Your task to perform on an android device: turn on showing notifications on the lock screen Image 0: 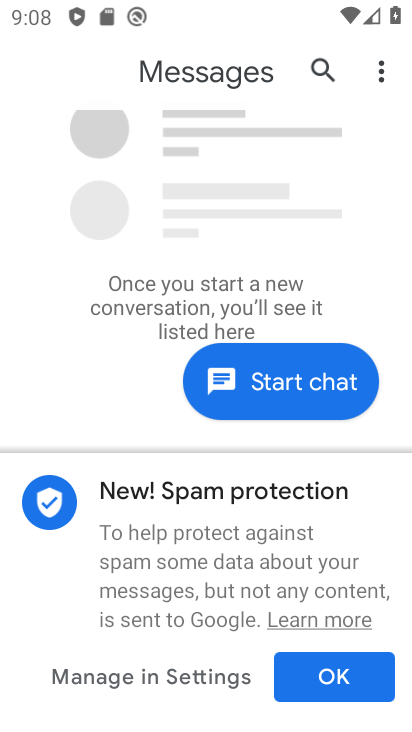
Step 0: press home button
Your task to perform on an android device: turn on showing notifications on the lock screen Image 1: 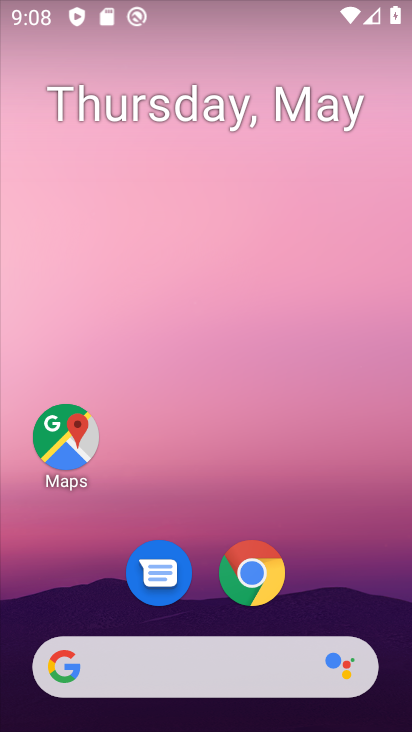
Step 1: drag from (94, 621) to (252, 181)
Your task to perform on an android device: turn on showing notifications on the lock screen Image 2: 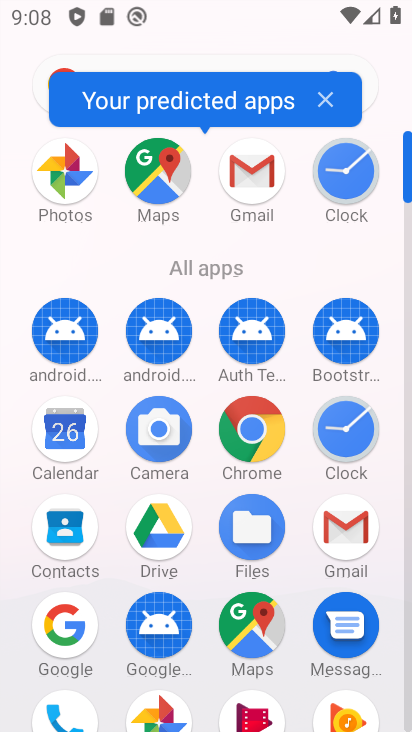
Step 2: drag from (158, 695) to (232, 430)
Your task to perform on an android device: turn on showing notifications on the lock screen Image 3: 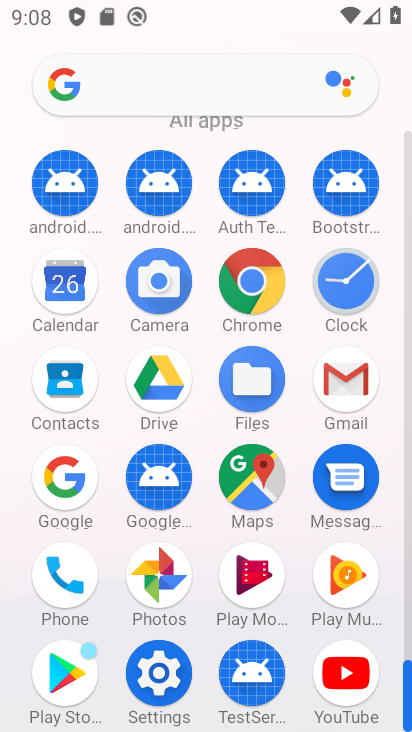
Step 3: click (153, 680)
Your task to perform on an android device: turn on showing notifications on the lock screen Image 4: 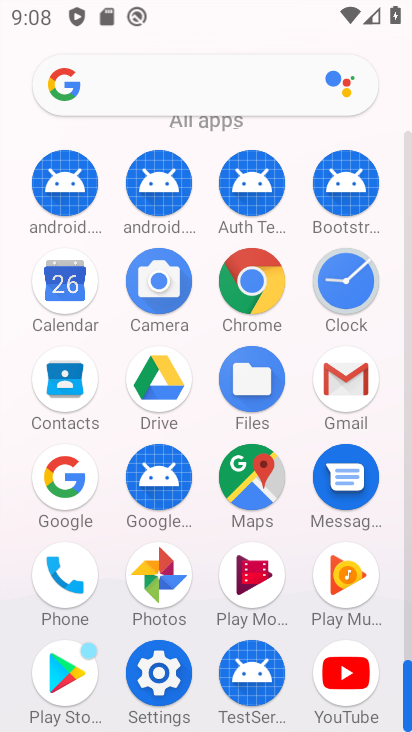
Step 4: click (163, 665)
Your task to perform on an android device: turn on showing notifications on the lock screen Image 5: 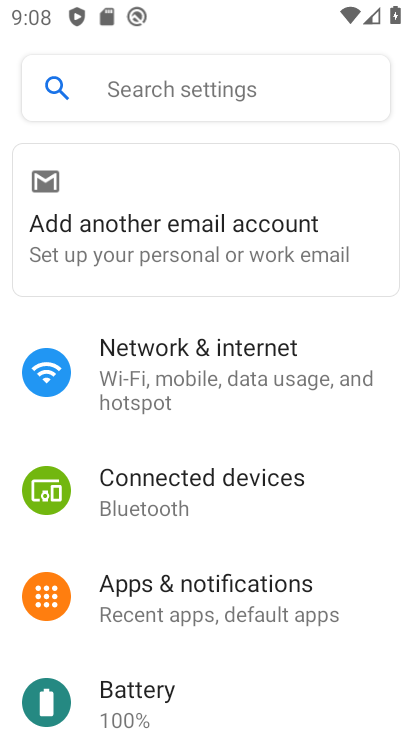
Step 5: drag from (226, 677) to (299, 386)
Your task to perform on an android device: turn on showing notifications on the lock screen Image 6: 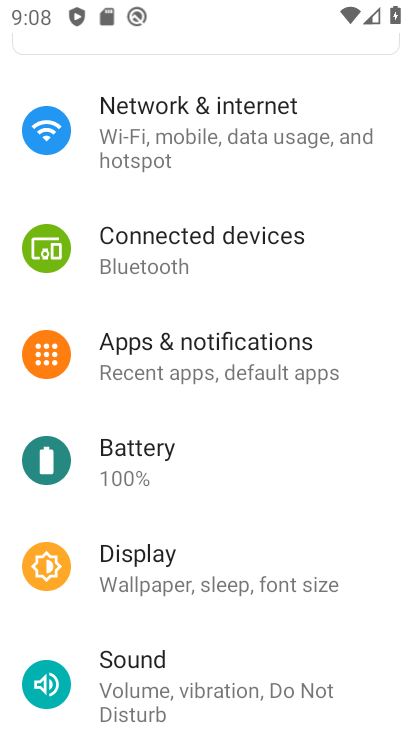
Step 6: click (245, 358)
Your task to perform on an android device: turn on showing notifications on the lock screen Image 7: 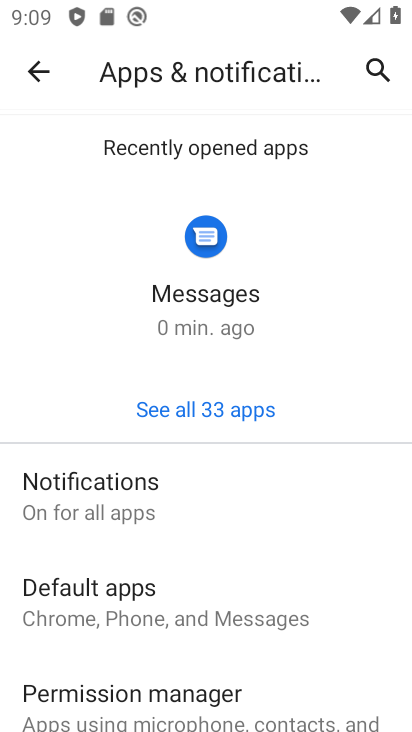
Step 7: click (197, 490)
Your task to perform on an android device: turn on showing notifications on the lock screen Image 8: 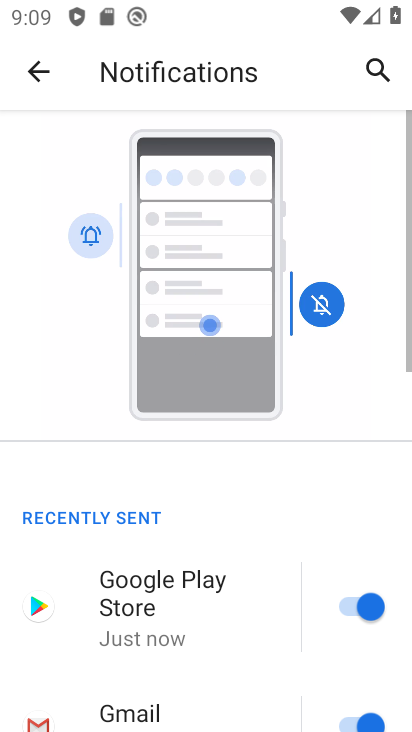
Step 8: drag from (142, 549) to (324, 44)
Your task to perform on an android device: turn on showing notifications on the lock screen Image 9: 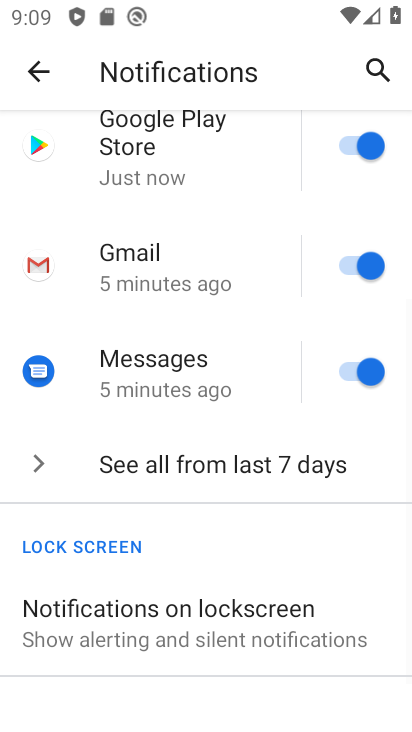
Step 9: drag from (166, 503) to (230, 254)
Your task to perform on an android device: turn on showing notifications on the lock screen Image 10: 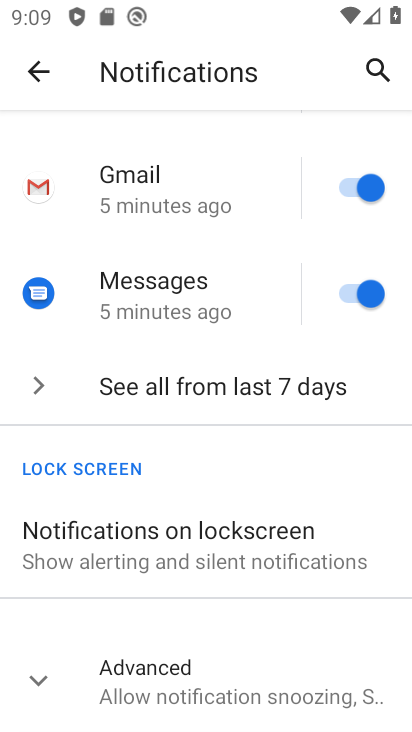
Step 10: click (171, 553)
Your task to perform on an android device: turn on showing notifications on the lock screen Image 11: 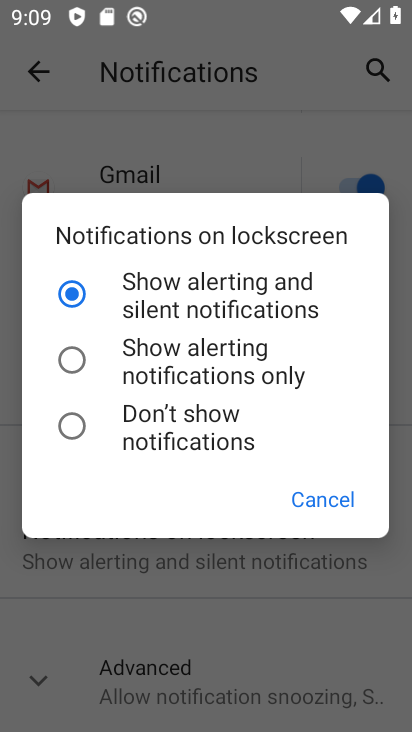
Step 11: task complete